Your task to perform on an android device: toggle notification dots Image 0: 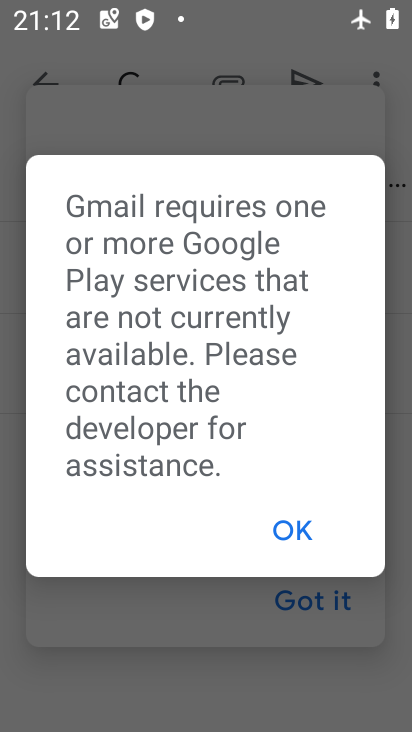
Step 0: press home button
Your task to perform on an android device: toggle notification dots Image 1: 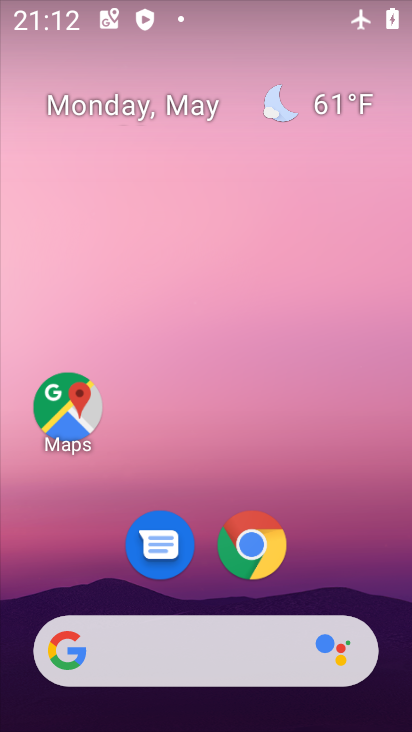
Step 1: drag from (212, 674) to (231, 290)
Your task to perform on an android device: toggle notification dots Image 2: 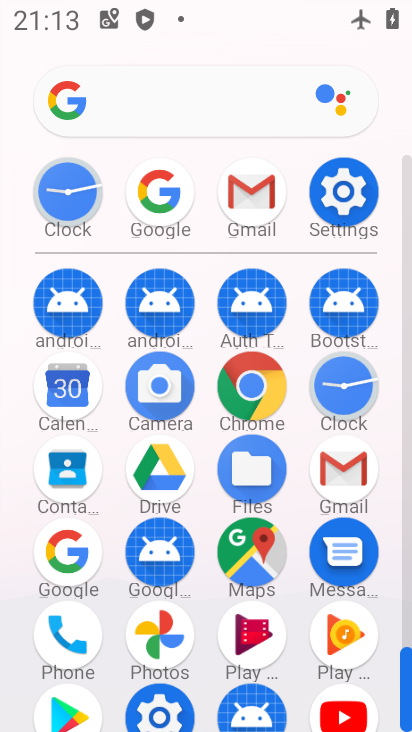
Step 2: click (345, 203)
Your task to perform on an android device: toggle notification dots Image 3: 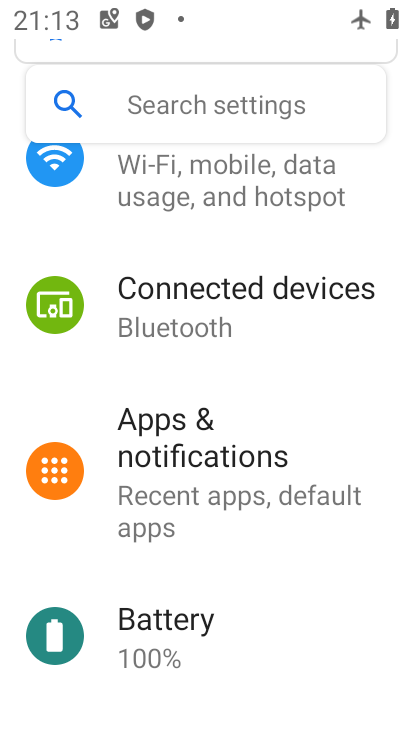
Step 3: click (228, 473)
Your task to perform on an android device: toggle notification dots Image 4: 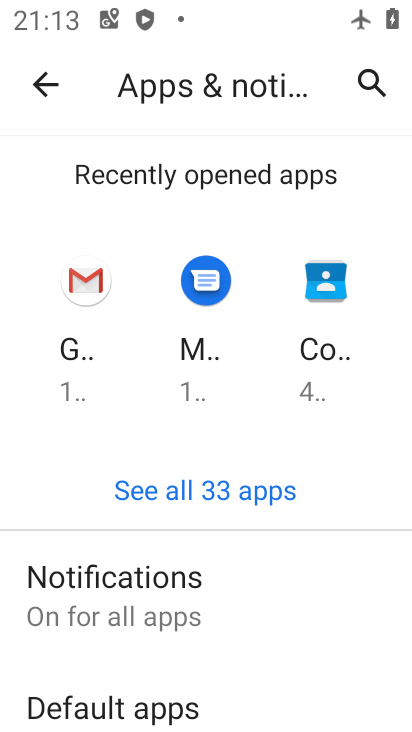
Step 4: drag from (258, 694) to (281, 333)
Your task to perform on an android device: toggle notification dots Image 5: 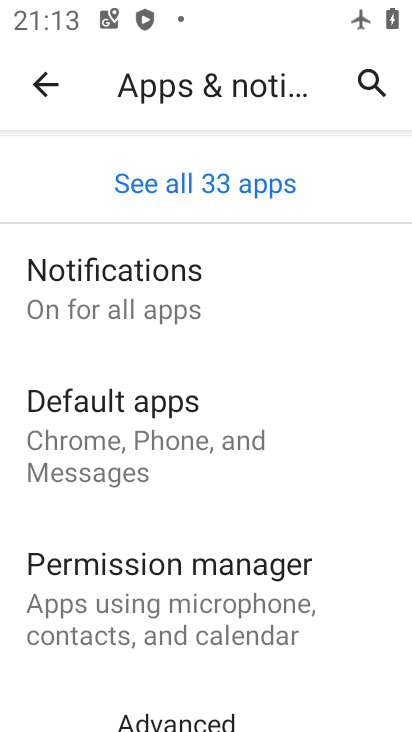
Step 5: click (178, 274)
Your task to perform on an android device: toggle notification dots Image 6: 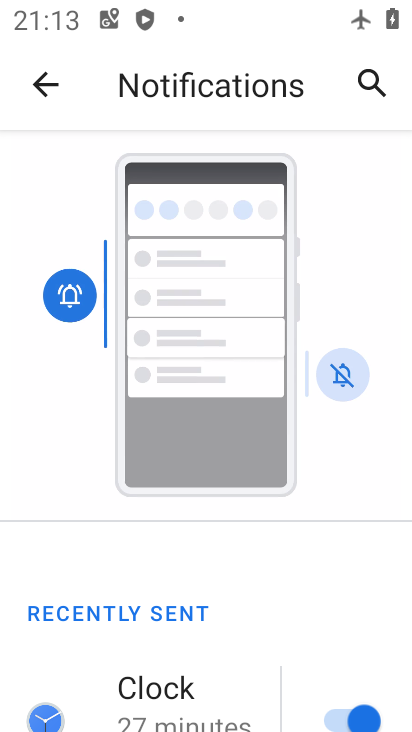
Step 6: drag from (306, 724) to (297, 372)
Your task to perform on an android device: toggle notification dots Image 7: 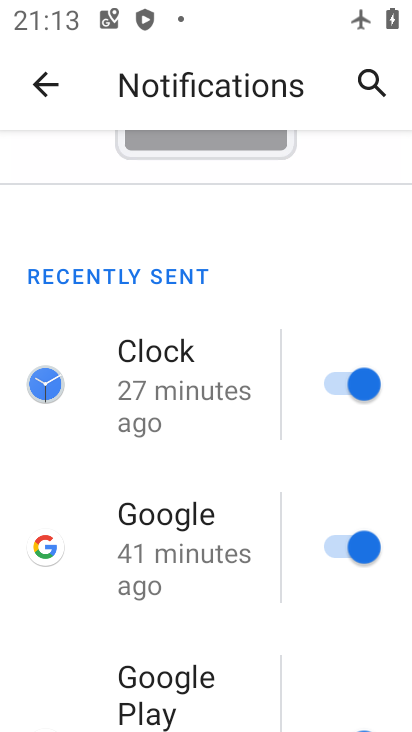
Step 7: drag from (292, 699) to (389, 100)
Your task to perform on an android device: toggle notification dots Image 8: 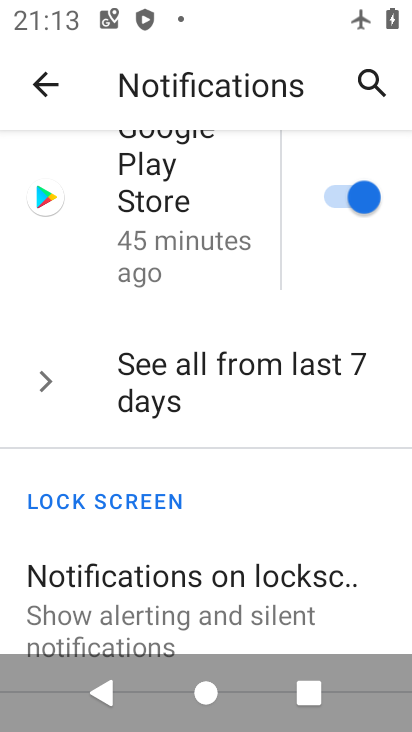
Step 8: drag from (294, 600) to (328, 267)
Your task to perform on an android device: toggle notification dots Image 9: 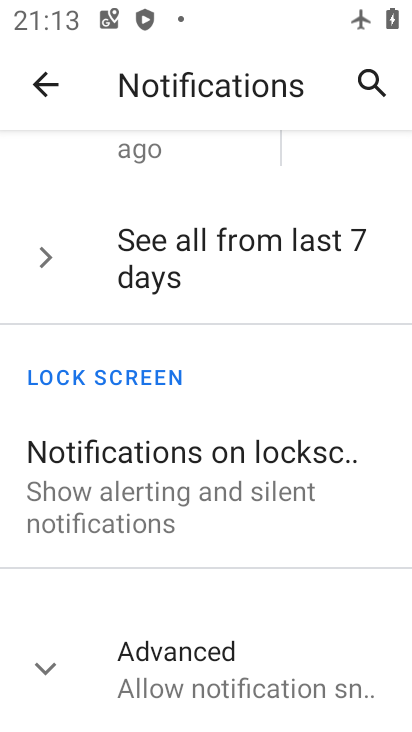
Step 9: click (215, 646)
Your task to perform on an android device: toggle notification dots Image 10: 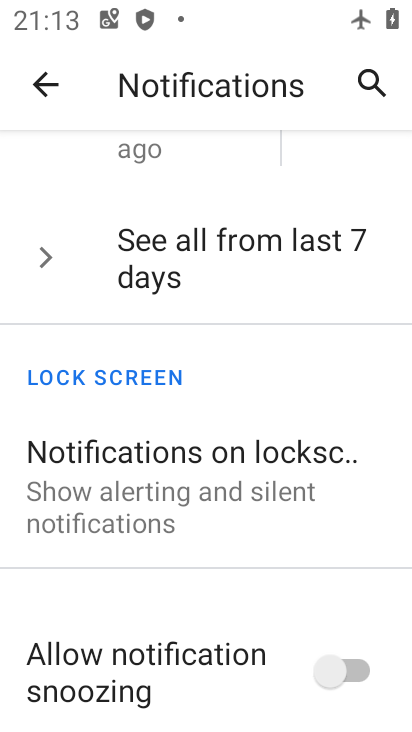
Step 10: drag from (234, 668) to (239, 218)
Your task to perform on an android device: toggle notification dots Image 11: 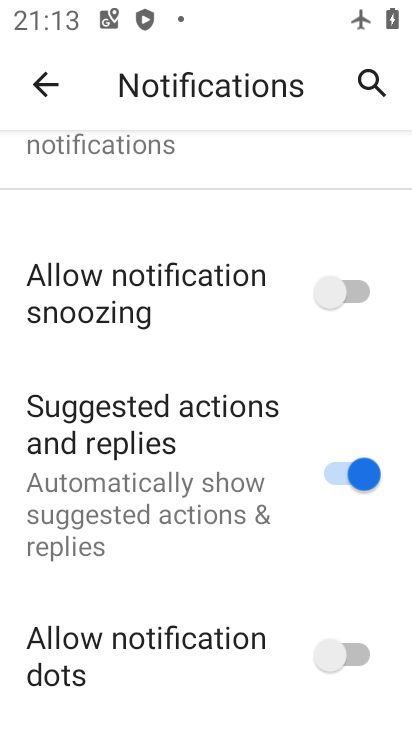
Step 11: click (351, 653)
Your task to perform on an android device: toggle notification dots Image 12: 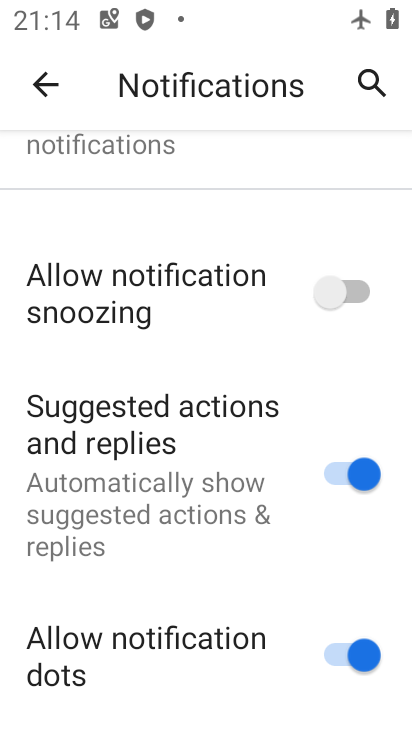
Step 12: task complete